Your task to perform on an android device: Open privacy settings Image 0: 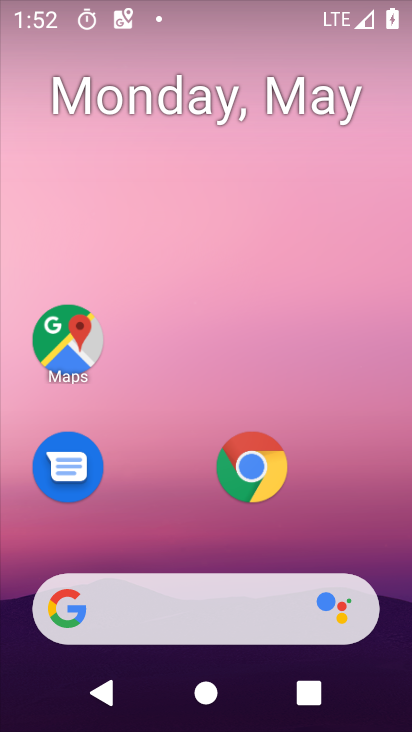
Step 0: click (224, 164)
Your task to perform on an android device: Open privacy settings Image 1: 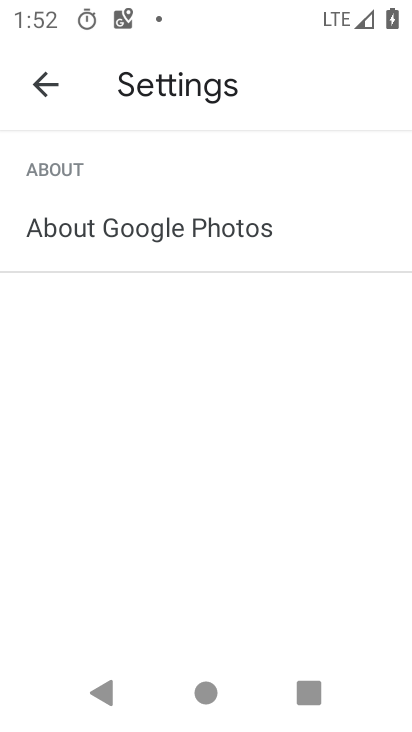
Step 1: click (316, 538)
Your task to perform on an android device: Open privacy settings Image 2: 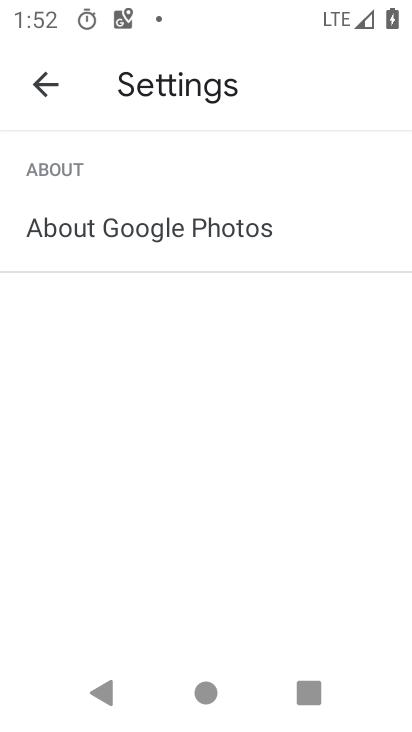
Step 2: press home button
Your task to perform on an android device: Open privacy settings Image 3: 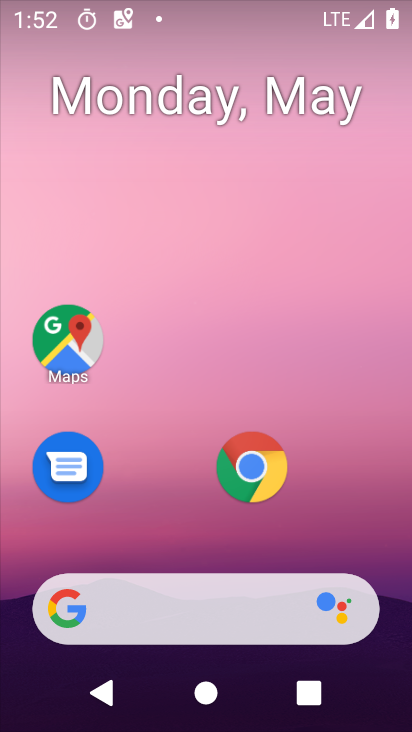
Step 3: drag from (202, 543) to (240, 38)
Your task to perform on an android device: Open privacy settings Image 4: 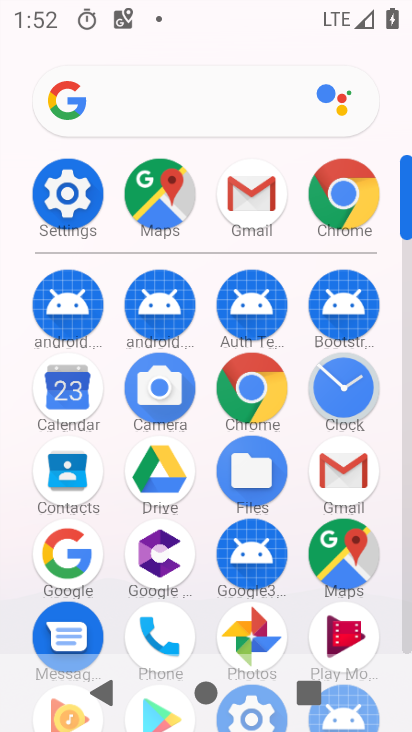
Step 4: click (52, 181)
Your task to perform on an android device: Open privacy settings Image 5: 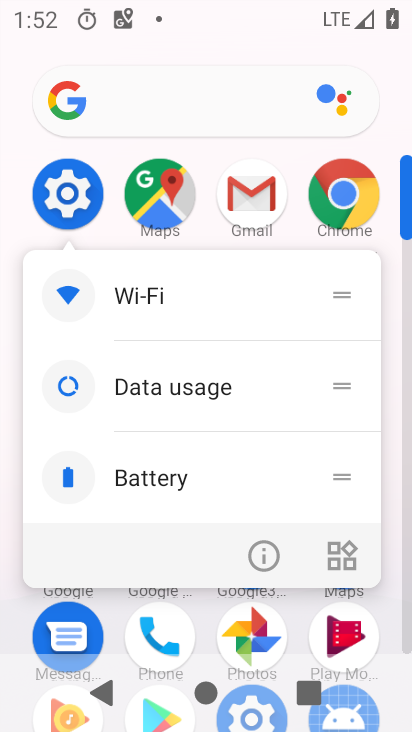
Step 5: click (250, 546)
Your task to perform on an android device: Open privacy settings Image 6: 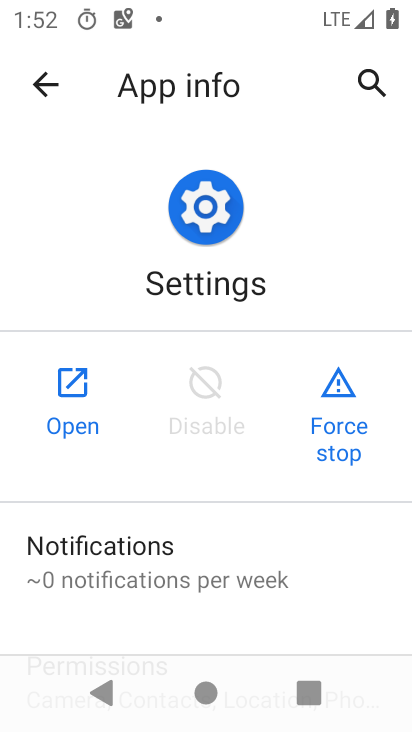
Step 6: click (72, 394)
Your task to perform on an android device: Open privacy settings Image 7: 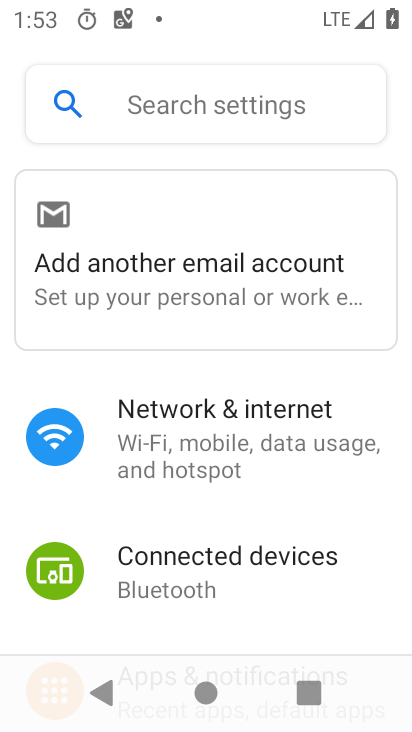
Step 7: drag from (191, 562) to (330, 15)
Your task to perform on an android device: Open privacy settings Image 8: 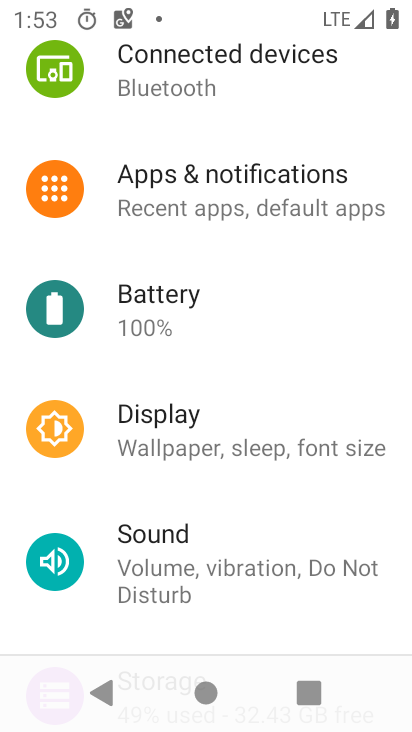
Step 8: drag from (203, 526) to (368, 22)
Your task to perform on an android device: Open privacy settings Image 9: 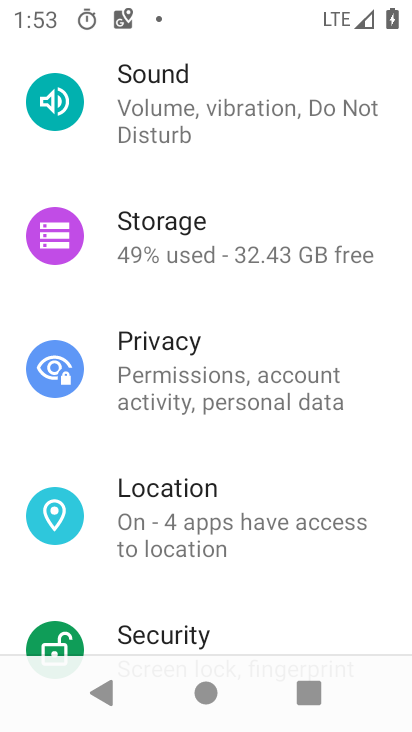
Step 9: click (190, 367)
Your task to perform on an android device: Open privacy settings Image 10: 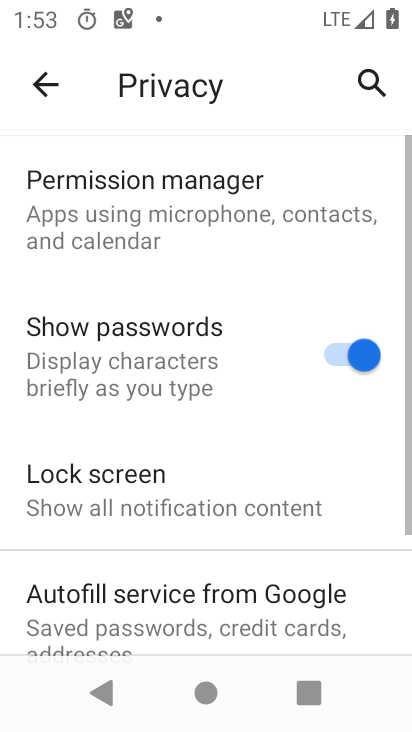
Step 10: task complete